Your task to perform on an android device: change the clock display to digital Image 0: 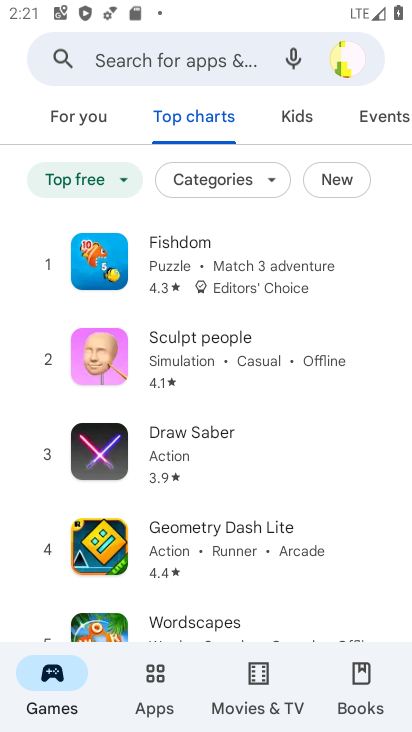
Step 0: press home button
Your task to perform on an android device: change the clock display to digital Image 1: 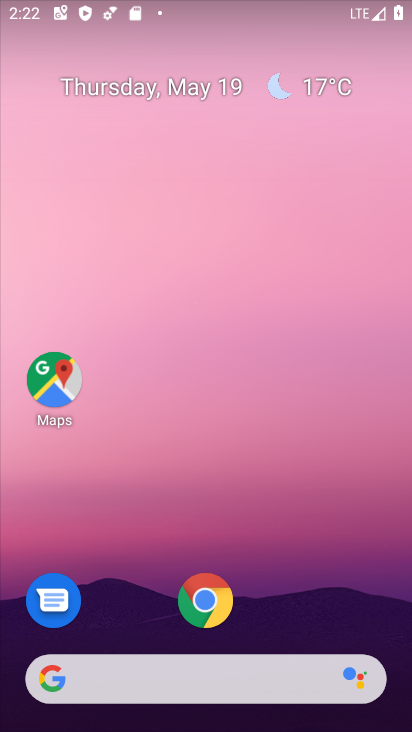
Step 1: drag from (300, 563) to (276, 130)
Your task to perform on an android device: change the clock display to digital Image 2: 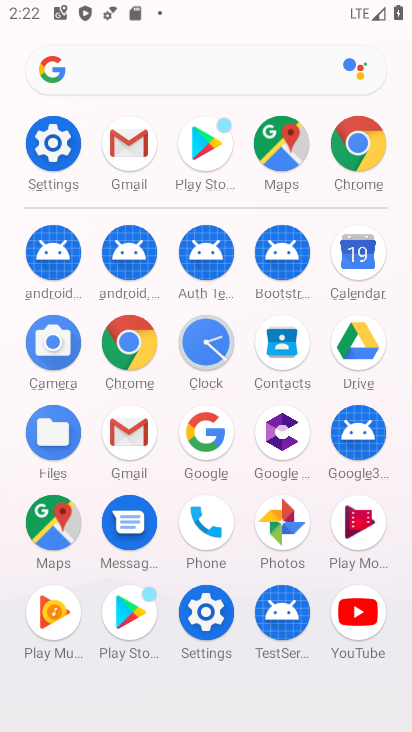
Step 2: click (214, 337)
Your task to perform on an android device: change the clock display to digital Image 3: 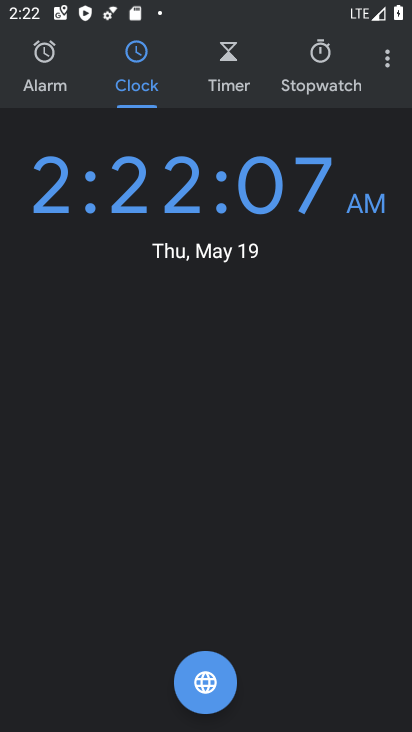
Step 3: click (387, 72)
Your task to perform on an android device: change the clock display to digital Image 4: 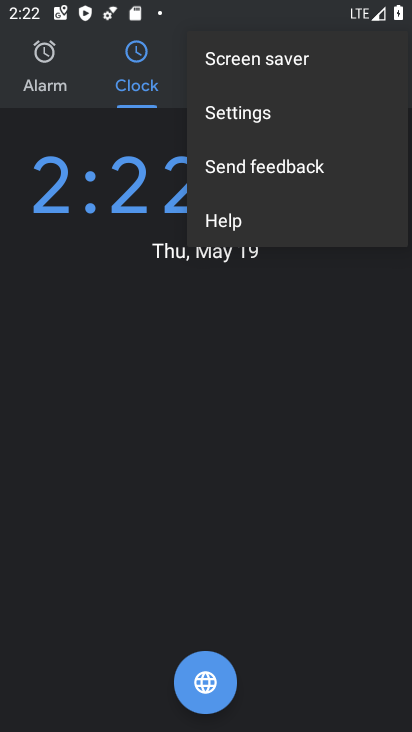
Step 4: click (287, 127)
Your task to perform on an android device: change the clock display to digital Image 5: 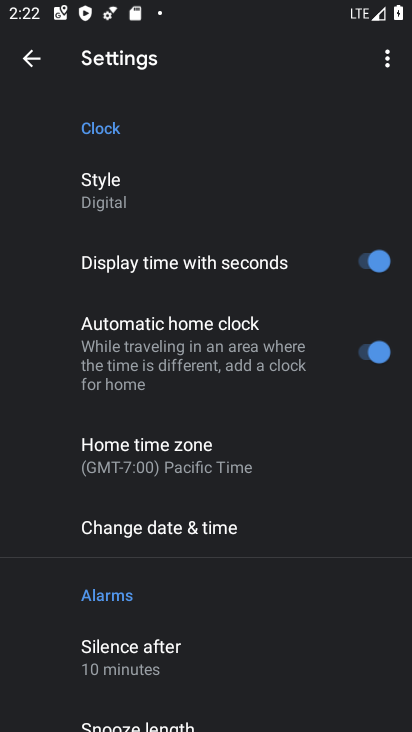
Step 5: click (223, 186)
Your task to perform on an android device: change the clock display to digital Image 6: 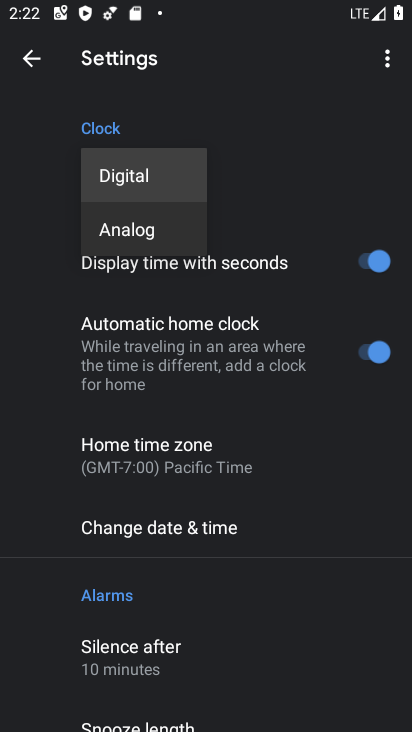
Step 6: task complete